Your task to perform on an android device: Find coffee shops on Maps Image 0: 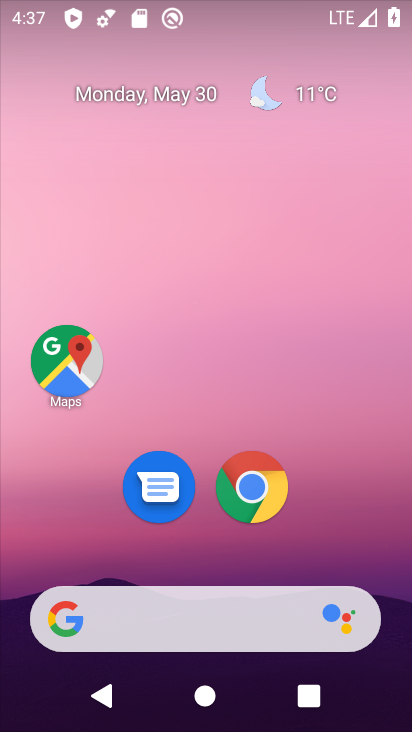
Step 0: click (72, 360)
Your task to perform on an android device: Find coffee shops on Maps Image 1: 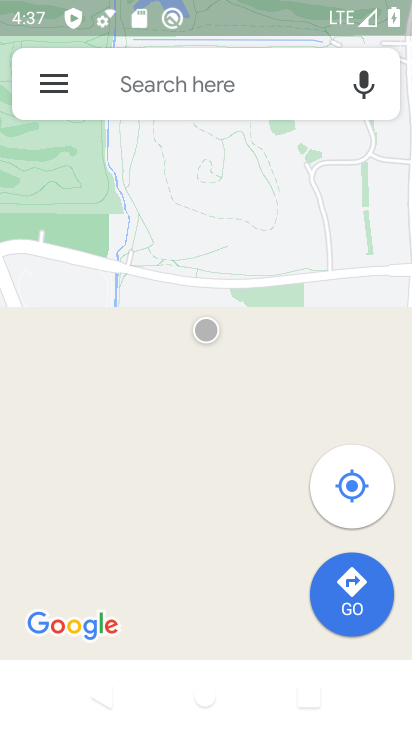
Step 1: click (182, 81)
Your task to perform on an android device: Find coffee shops on Maps Image 2: 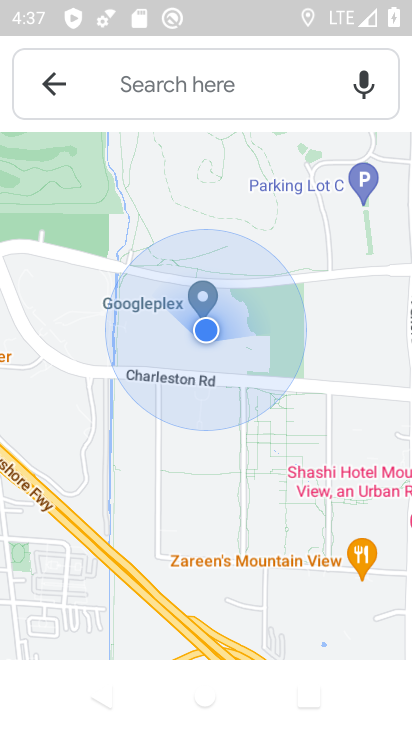
Step 2: click (204, 88)
Your task to perform on an android device: Find coffee shops on Maps Image 3: 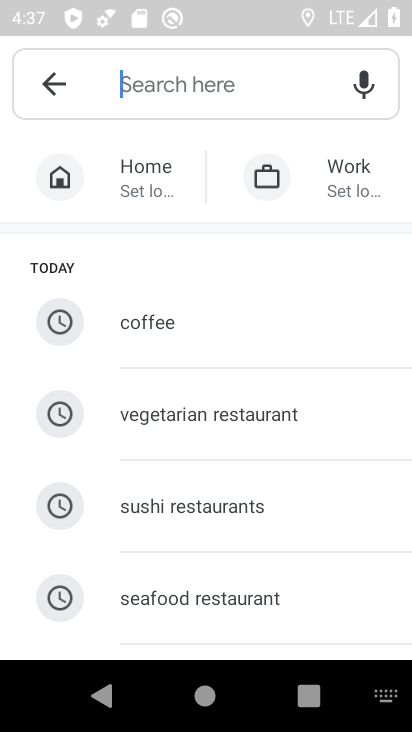
Step 3: type "coffee shop"
Your task to perform on an android device: Find coffee shops on Maps Image 4: 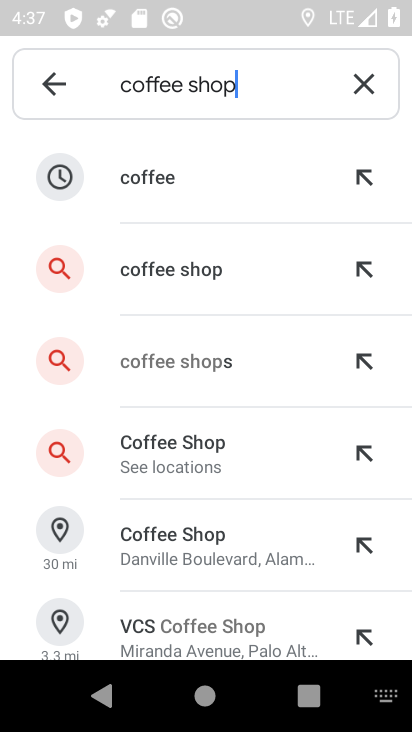
Step 4: click (163, 268)
Your task to perform on an android device: Find coffee shops on Maps Image 5: 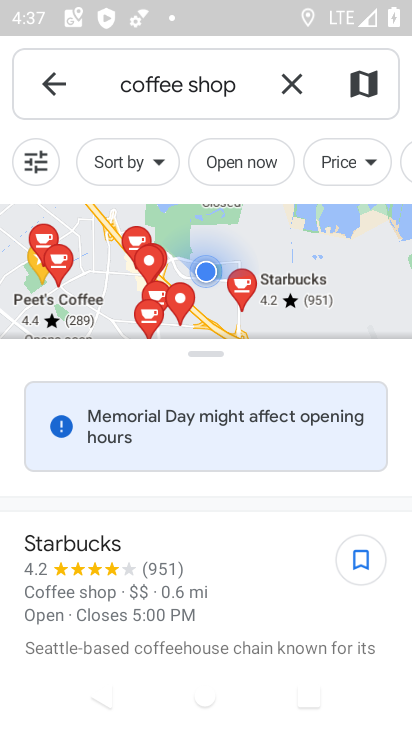
Step 5: task complete